Your task to perform on an android device: all mails in gmail Image 0: 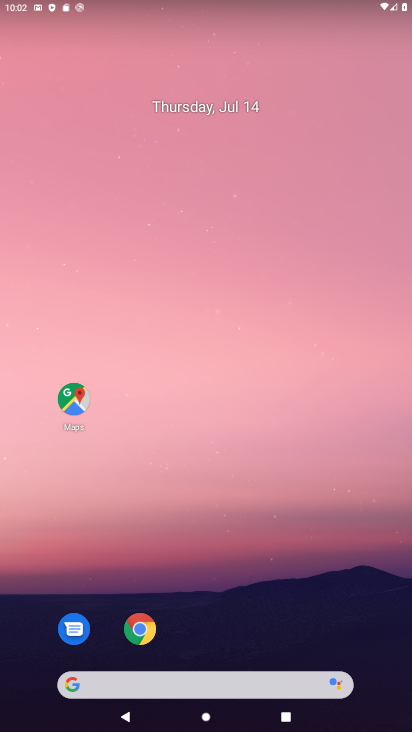
Step 0: drag from (155, 666) to (147, 340)
Your task to perform on an android device: all mails in gmail Image 1: 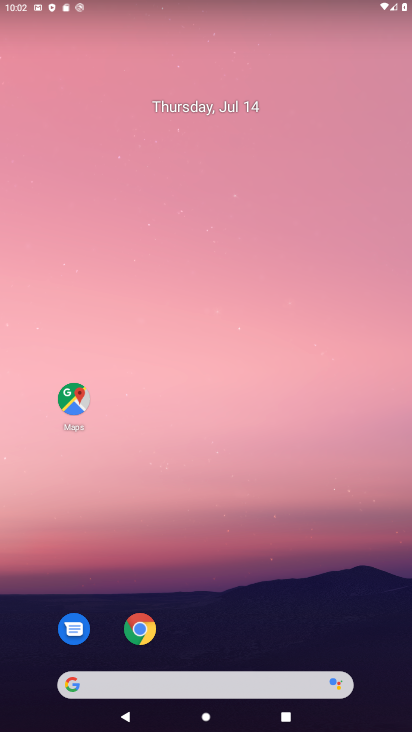
Step 1: drag from (204, 667) to (195, 226)
Your task to perform on an android device: all mails in gmail Image 2: 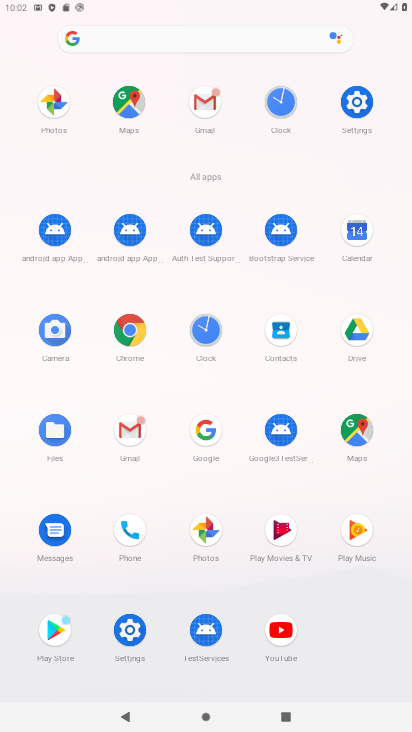
Step 2: click (201, 102)
Your task to perform on an android device: all mails in gmail Image 3: 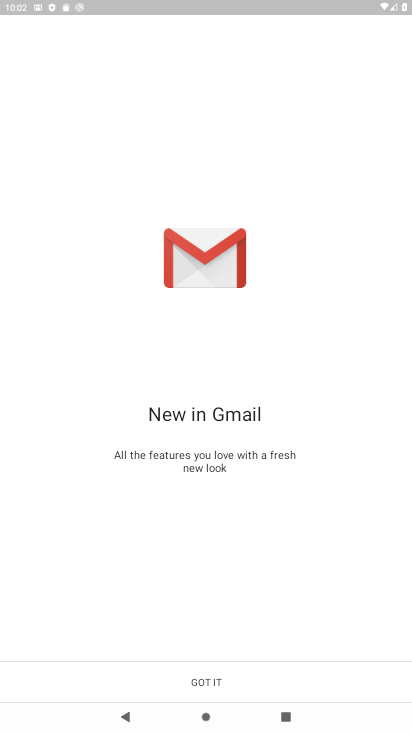
Step 3: click (159, 674)
Your task to perform on an android device: all mails in gmail Image 4: 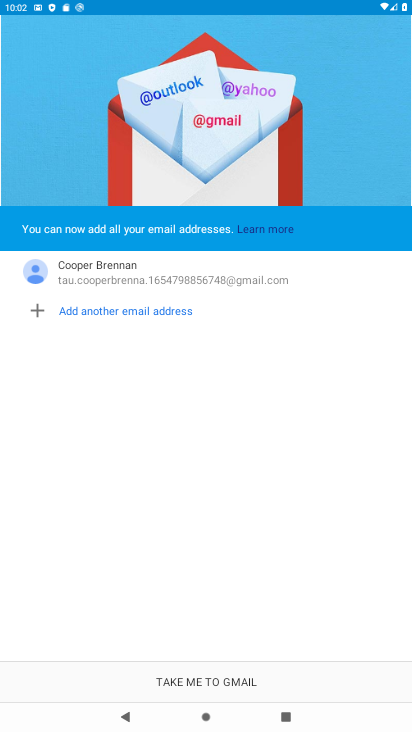
Step 4: click (174, 681)
Your task to perform on an android device: all mails in gmail Image 5: 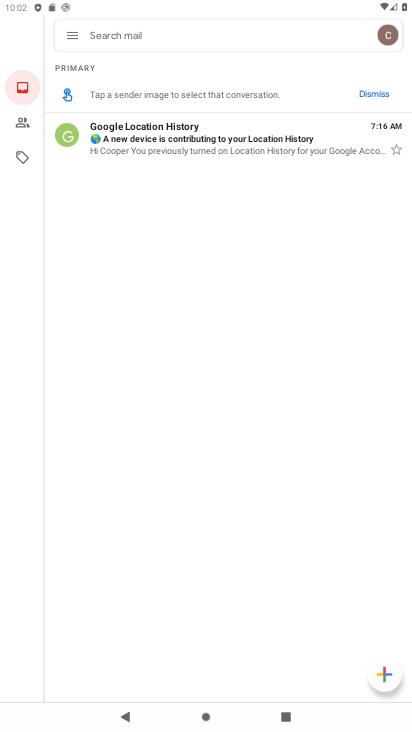
Step 5: click (73, 41)
Your task to perform on an android device: all mails in gmail Image 6: 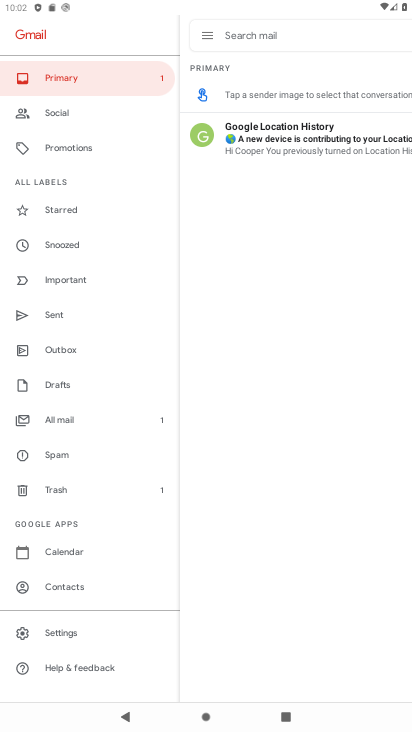
Step 6: click (62, 418)
Your task to perform on an android device: all mails in gmail Image 7: 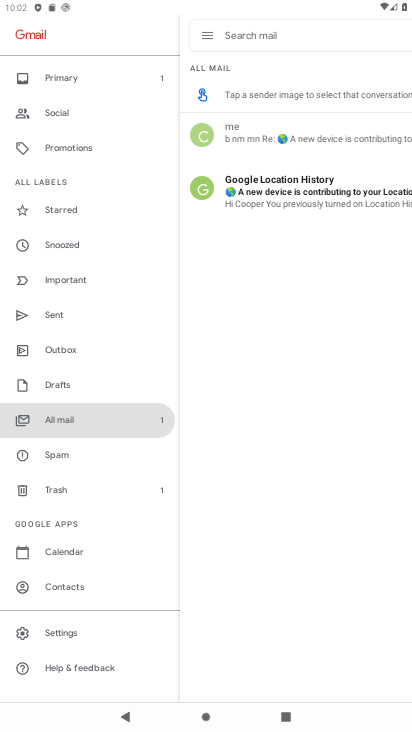
Step 7: task complete